Your task to perform on an android device: change notifications settings Image 0: 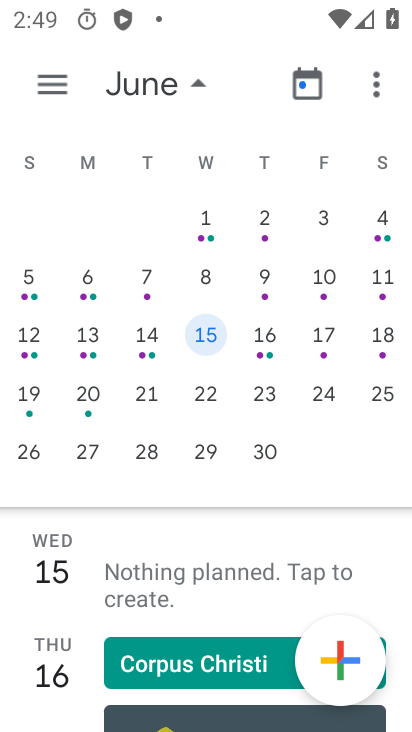
Step 0: press home button
Your task to perform on an android device: change notifications settings Image 1: 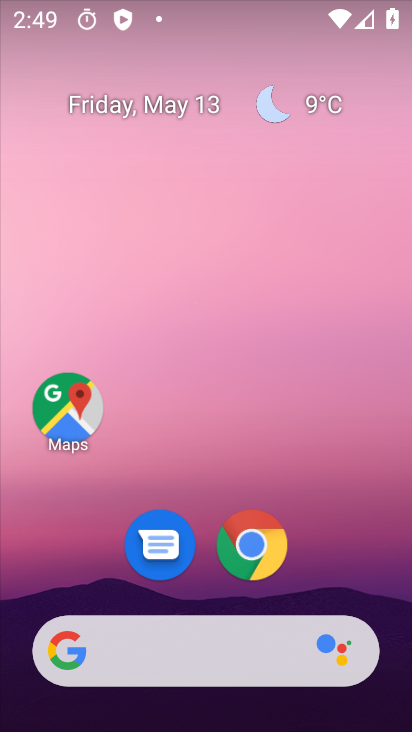
Step 1: drag from (324, 536) to (296, 112)
Your task to perform on an android device: change notifications settings Image 2: 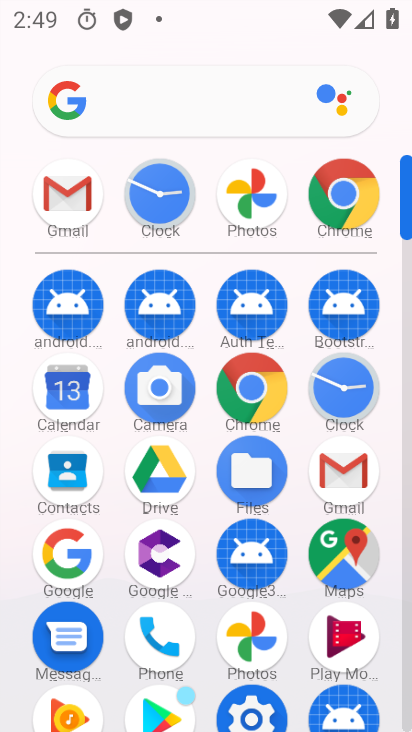
Step 2: click (253, 707)
Your task to perform on an android device: change notifications settings Image 3: 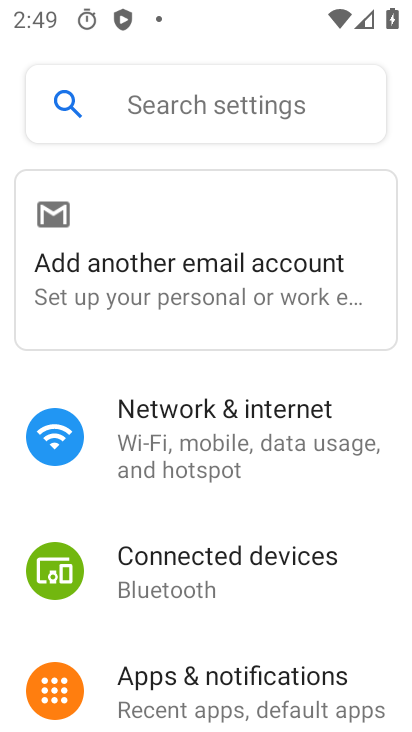
Step 3: drag from (340, 636) to (300, 204)
Your task to perform on an android device: change notifications settings Image 4: 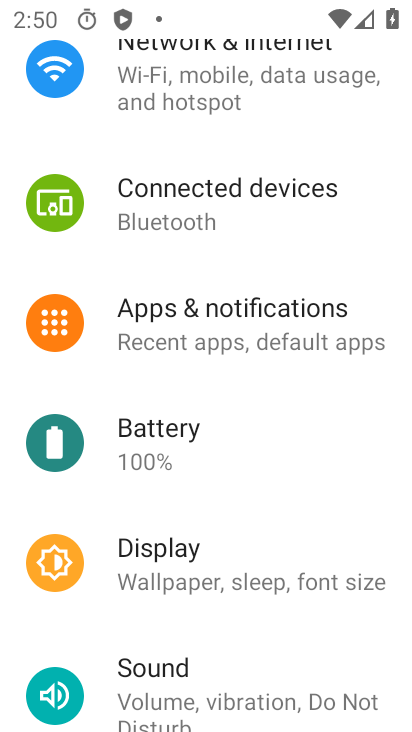
Step 4: click (213, 306)
Your task to perform on an android device: change notifications settings Image 5: 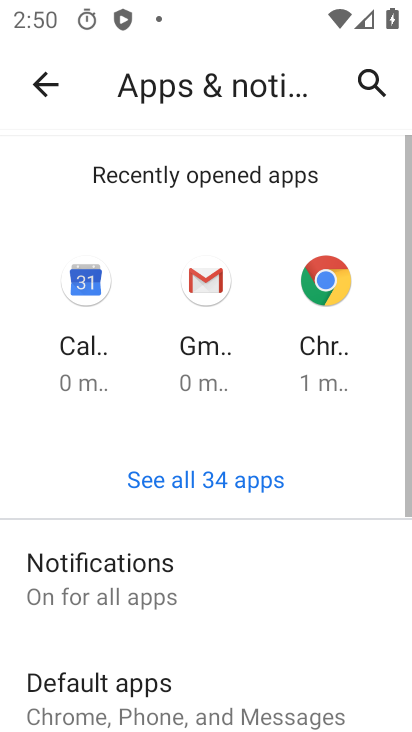
Step 5: click (130, 575)
Your task to perform on an android device: change notifications settings Image 6: 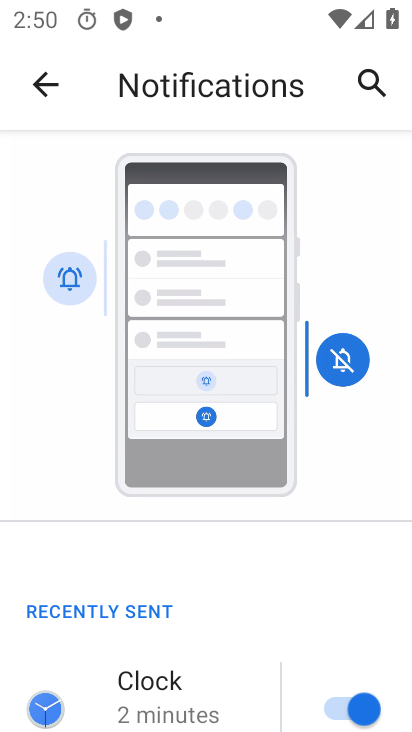
Step 6: drag from (252, 638) to (296, 238)
Your task to perform on an android device: change notifications settings Image 7: 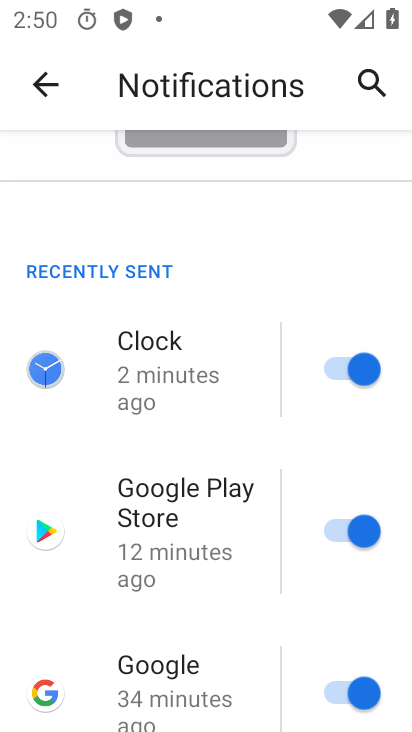
Step 7: drag from (251, 624) to (248, 272)
Your task to perform on an android device: change notifications settings Image 8: 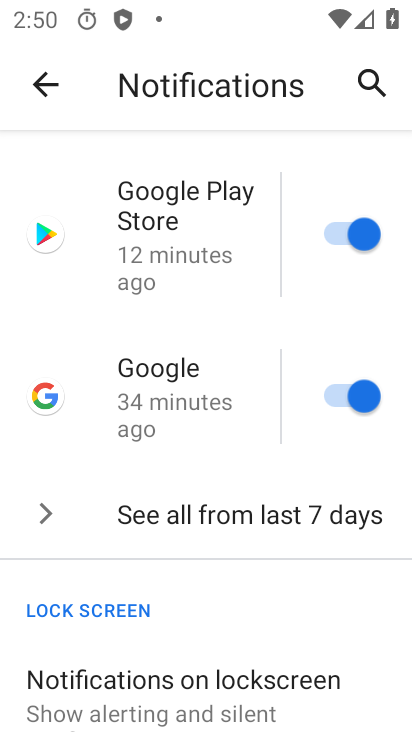
Step 8: drag from (233, 595) to (254, 299)
Your task to perform on an android device: change notifications settings Image 9: 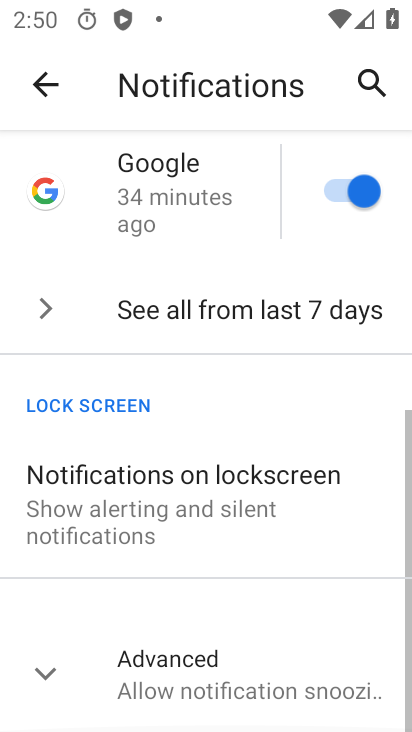
Step 9: drag from (221, 669) to (252, 334)
Your task to perform on an android device: change notifications settings Image 10: 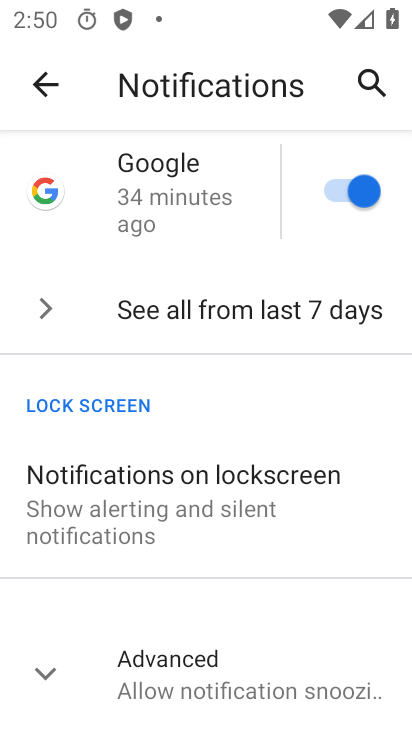
Step 10: click (137, 515)
Your task to perform on an android device: change notifications settings Image 11: 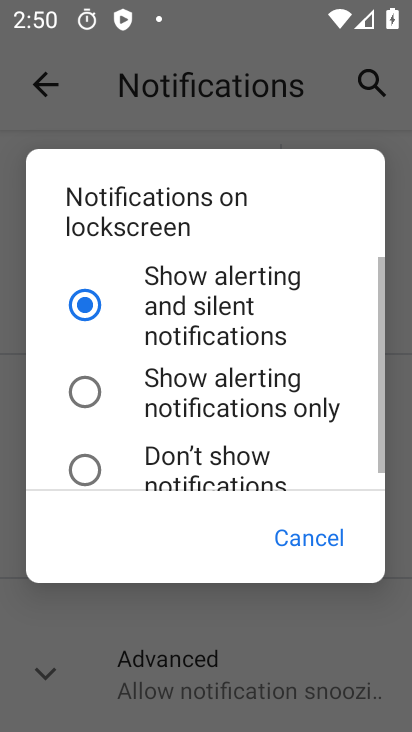
Step 11: click (186, 398)
Your task to perform on an android device: change notifications settings Image 12: 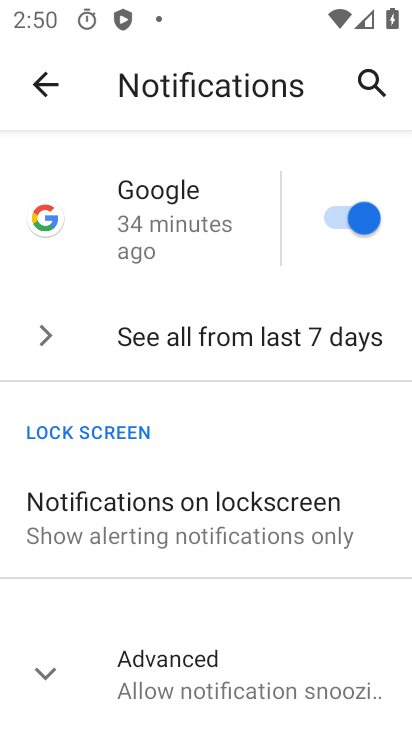
Step 12: task complete